Your task to perform on an android device: toggle notifications settings in the gmail app Image 0: 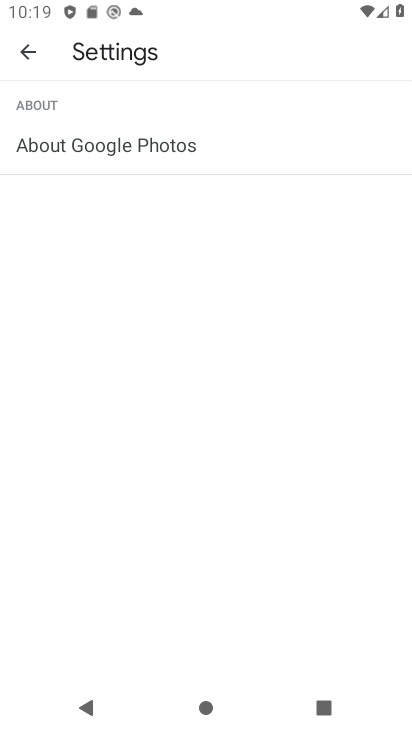
Step 0: press home button
Your task to perform on an android device: toggle notifications settings in the gmail app Image 1: 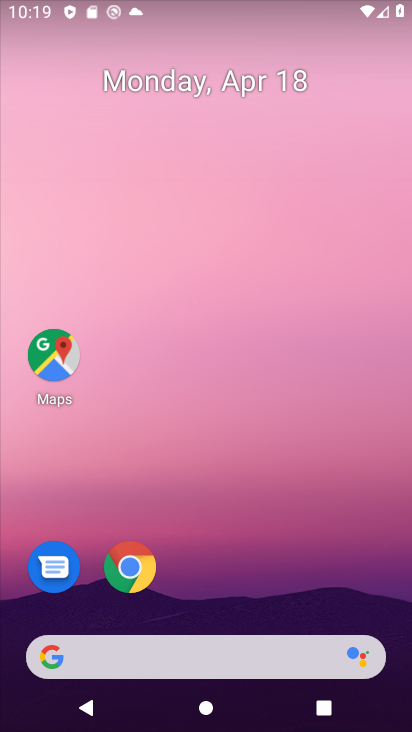
Step 1: drag from (252, 518) to (262, 50)
Your task to perform on an android device: toggle notifications settings in the gmail app Image 2: 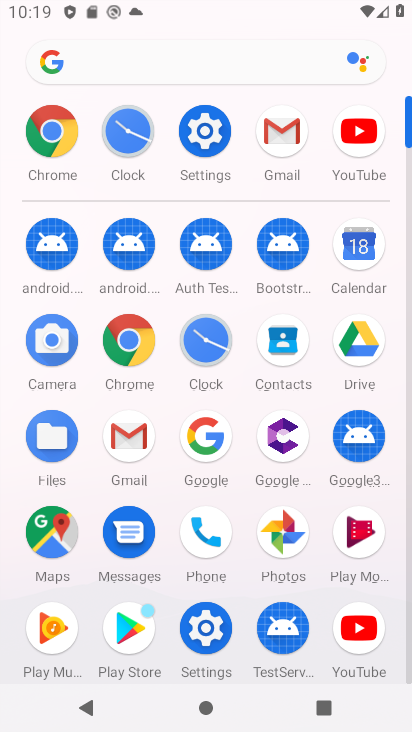
Step 2: click (123, 440)
Your task to perform on an android device: toggle notifications settings in the gmail app Image 3: 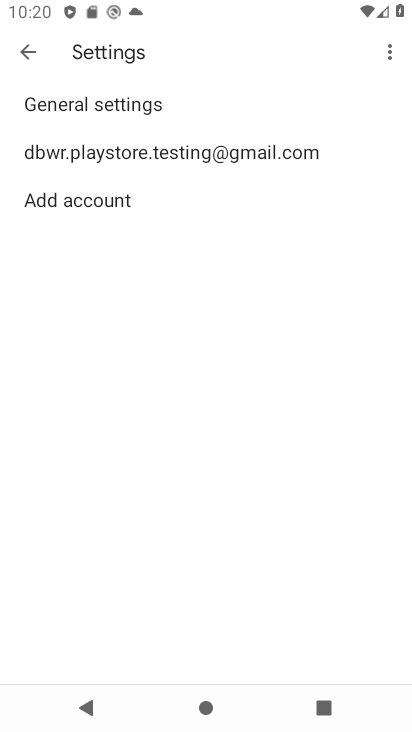
Step 3: click (137, 158)
Your task to perform on an android device: toggle notifications settings in the gmail app Image 4: 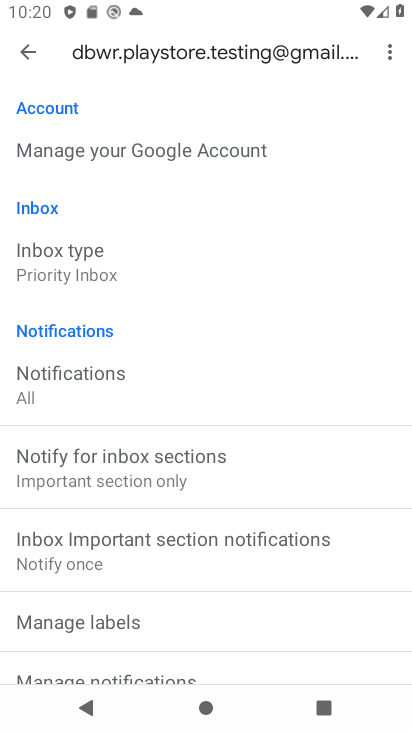
Step 4: drag from (124, 617) to (128, 496)
Your task to perform on an android device: toggle notifications settings in the gmail app Image 5: 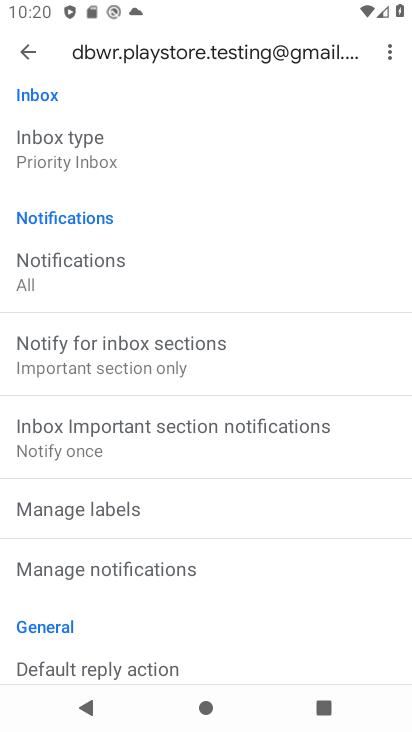
Step 5: click (100, 571)
Your task to perform on an android device: toggle notifications settings in the gmail app Image 6: 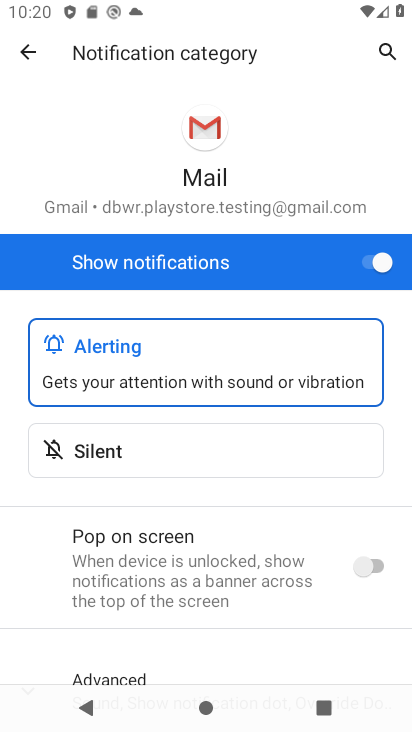
Step 6: click (381, 271)
Your task to perform on an android device: toggle notifications settings in the gmail app Image 7: 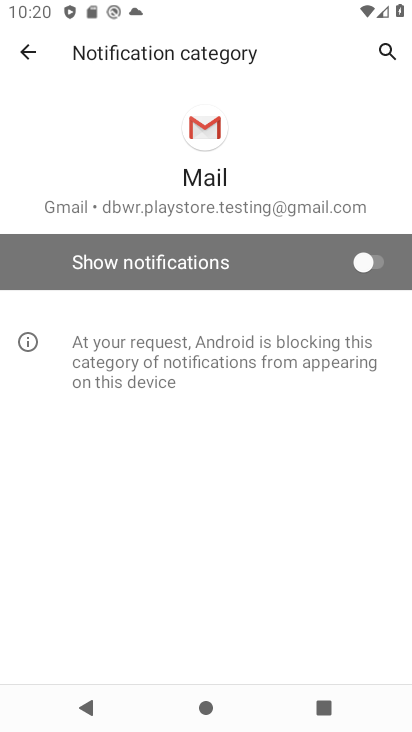
Step 7: task complete